Your task to perform on an android device: clear history in the chrome app Image 0: 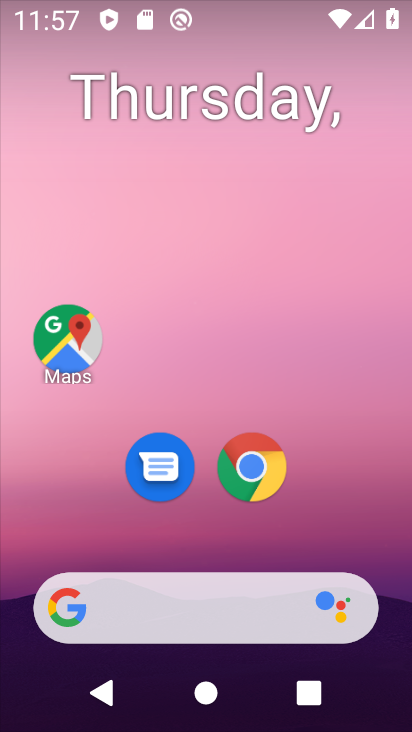
Step 0: click (245, 461)
Your task to perform on an android device: clear history in the chrome app Image 1: 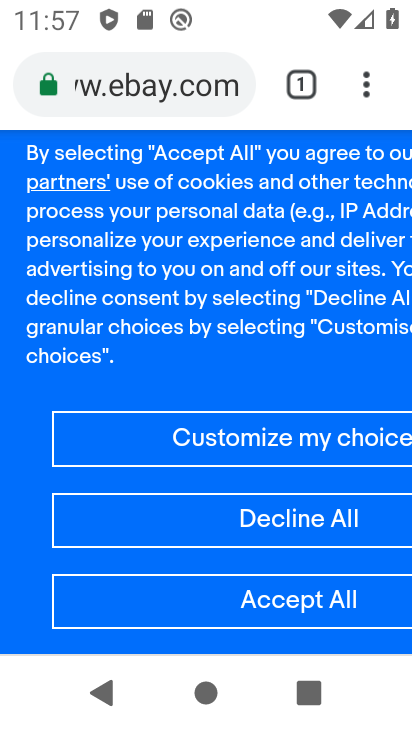
Step 1: click (364, 89)
Your task to perform on an android device: clear history in the chrome app Image 2: 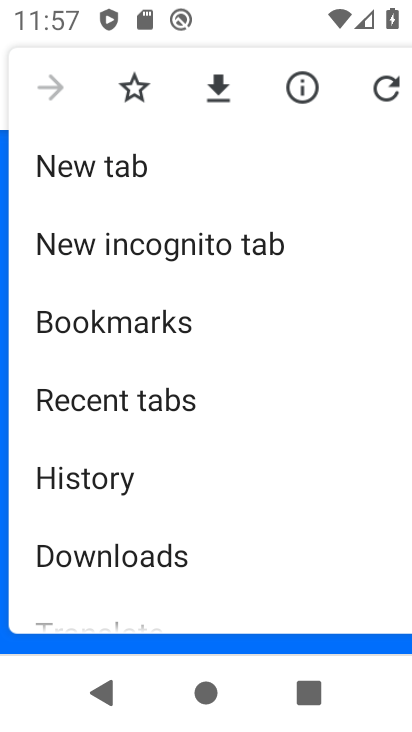
Step 2: click (103, 469)
Your task to perform on an android device: clear history in the chrome app Image 3: 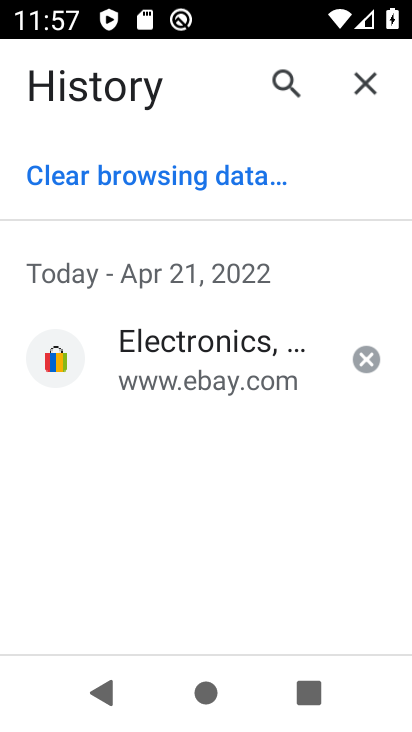
Step 3: click (131, 167)
Your task to perform on an android device: clear history in the chrome app Image 4: 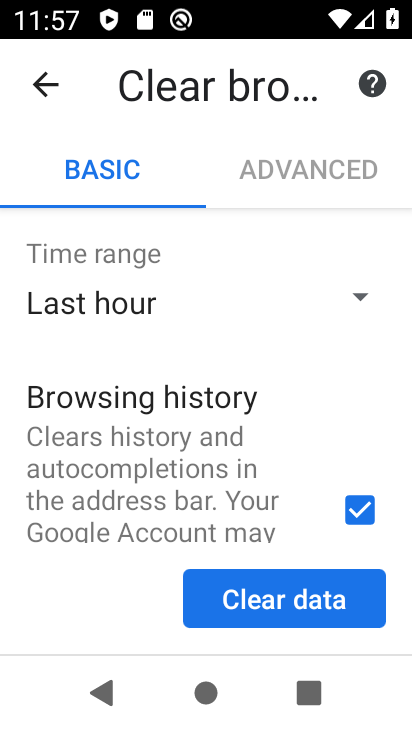
Step 4: drag from (229, 466) to (238, 247)
Your task to perform on an android device: clear history in the chrome app Image 5: 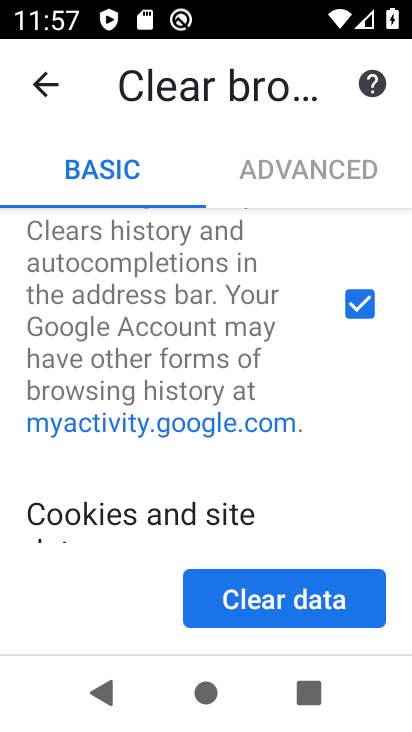
Step 5: drag from (280, 486) to (291, 223)
Your task to perform on an android device: clear history in the chrome app Image 6: 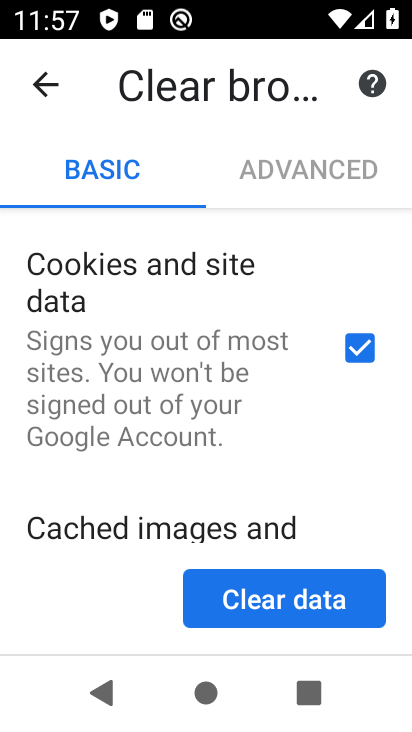
Step 6: click (366, 355)
Your task to perform on an android device: clear history in the chrome app Image 7: 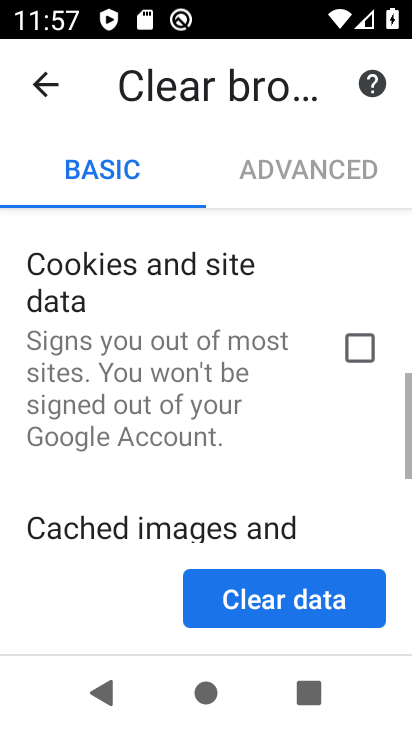
Step 7: drag from (275, 459) to (265, 171)
Your task to perform on an android device: clear history in the chrome app Image 8: 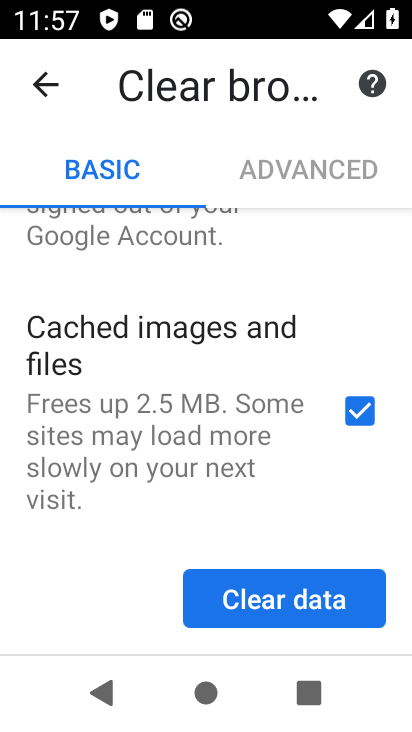
Step 8: click (355, 405)
Your task to perform on an android device: clear history in the chrome app Image 9: 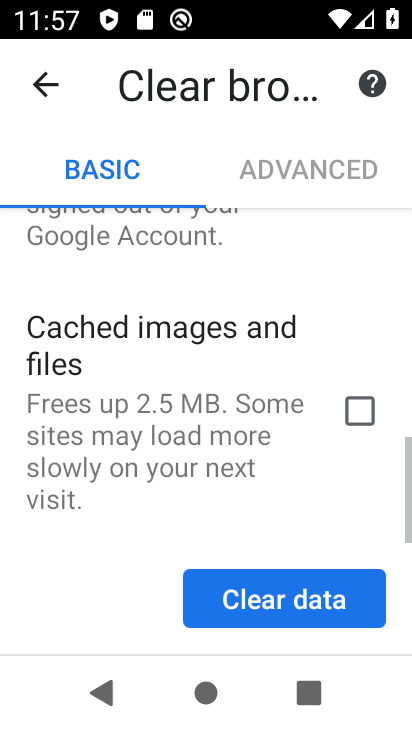
Step 9: click (282, 594)
Your task to perform on an android device: clear history in the chrome app Image 10: 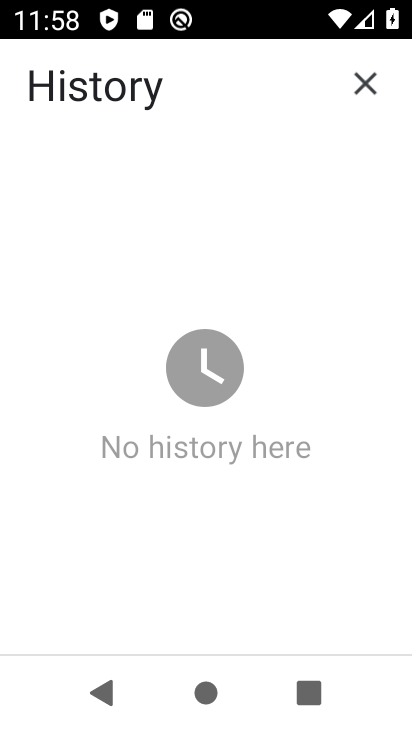
Step 10: task complete